Your task to perform on an android device: see creations saved in the google photos Image 0: 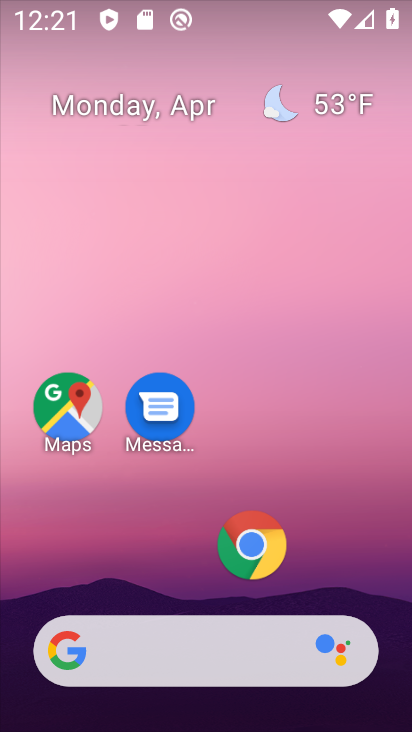
Step 0: drag from (169, 570) to (226, 120)
Your task to perform on an android device: see creations saved in the google photos Image 1: 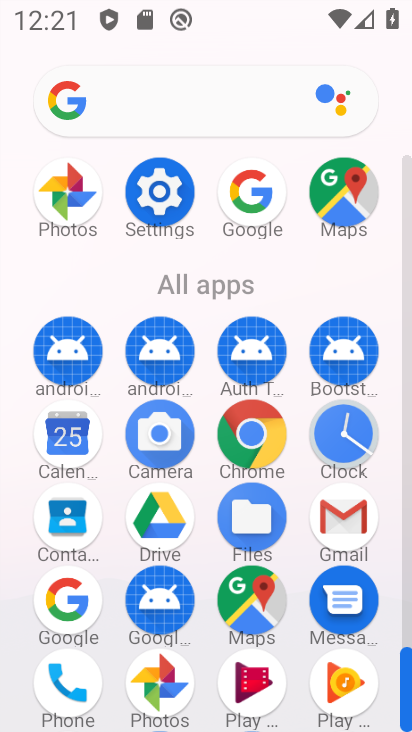
Step 1: click (69, 198)
Your task to perform on an android device: see creations saved in the google photos Image 2: 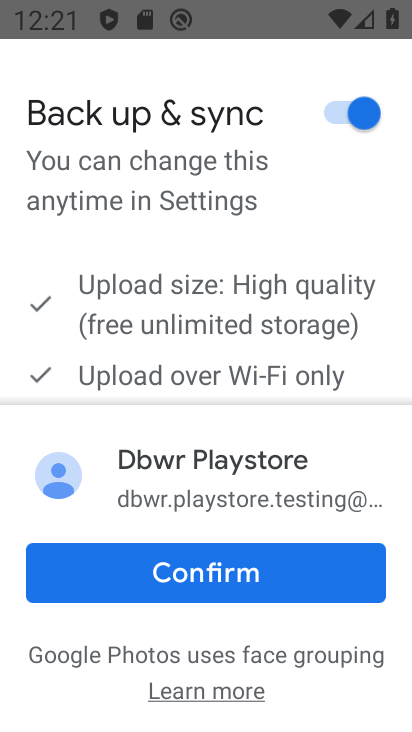
Step 2: click (193, 572)
Your task to perform on an android device: see creations saved in the google photos Image 3: 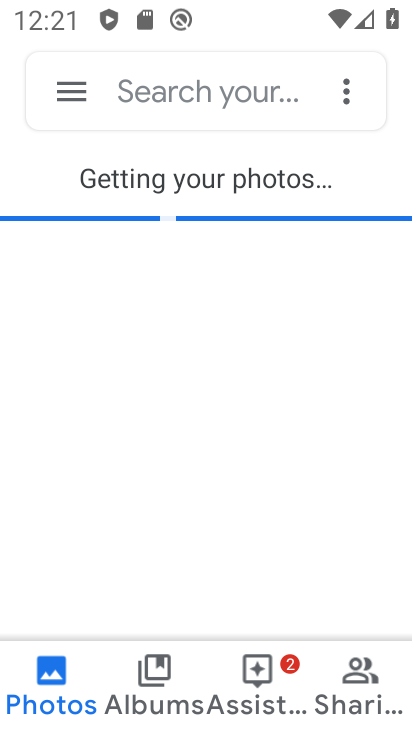
Step 3: click (151, 98)
Your task to perform on an android device: see creations saved in the google photos Image 4: 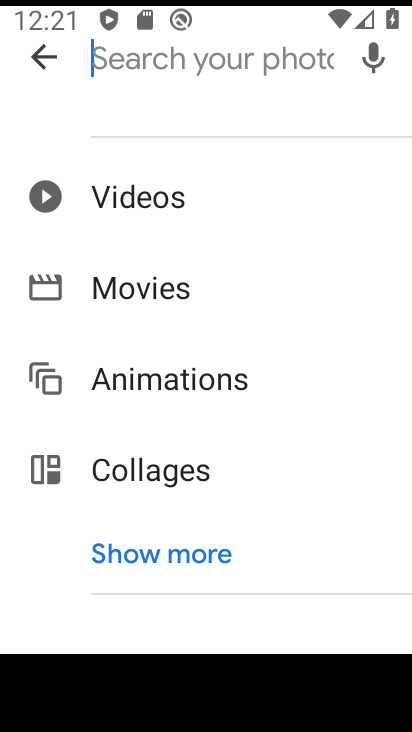
Step 4: click (150, 546)
Your task to perform on an android device: see creations saved in the google photos Image 5: 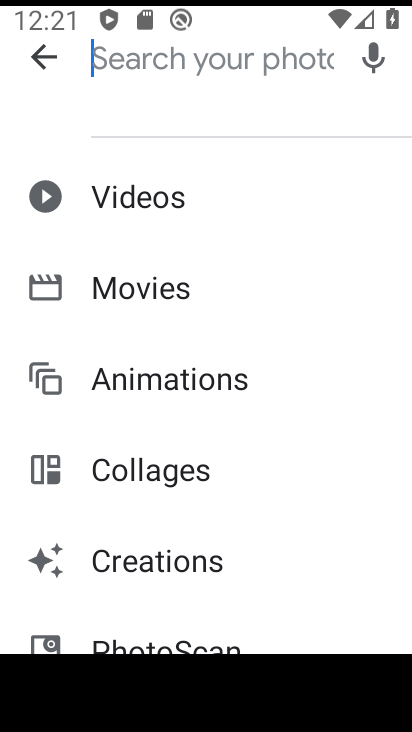
Step 5: click (156, 560)
Your task to perform on an android device: see creations saved in the google photos Image 6: 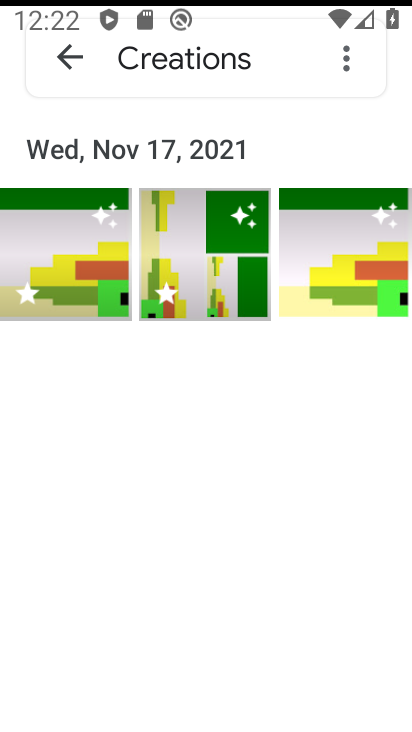
Step 6: task complete